Your task to perform on an android device: uninstall "Google Play Music" Image 0: 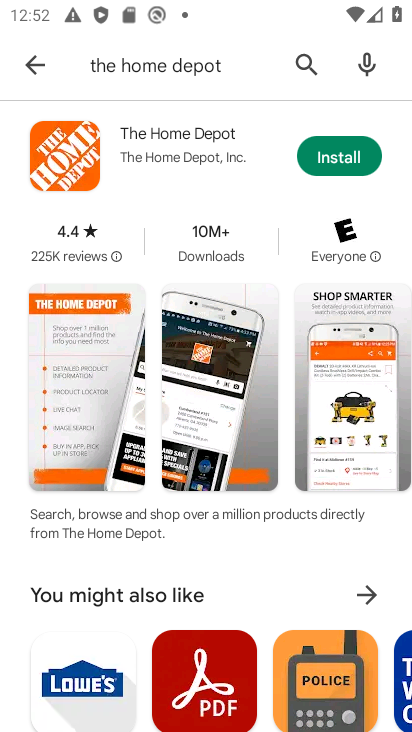
Step 0: click (299, 61)
Your task to perform on an android device: uninstall "Google Play Music" Image 1: 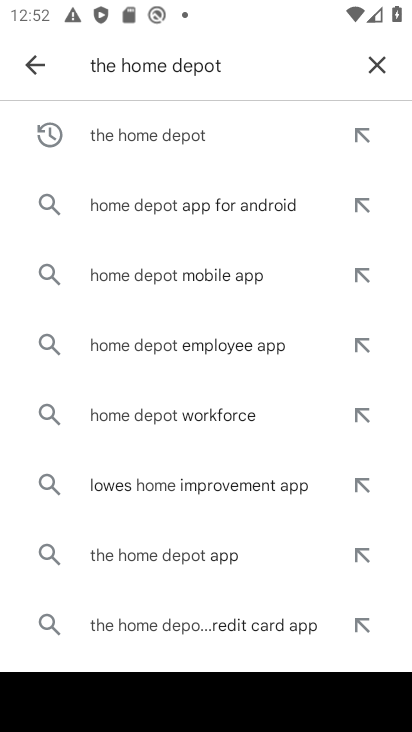
Step 1: click (369, 62)
Your task to perform on an android device: uninstall "Google Play Music" Image 2: 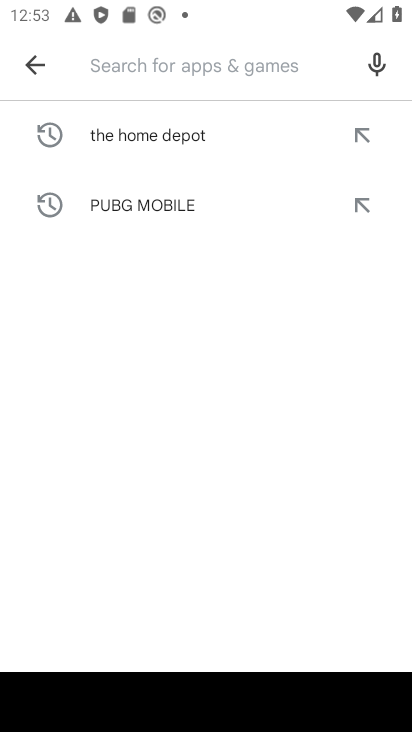
Step 2: type "google play music"
Your task to perform on an android device: uninstall "Google Play Music" Image 3: 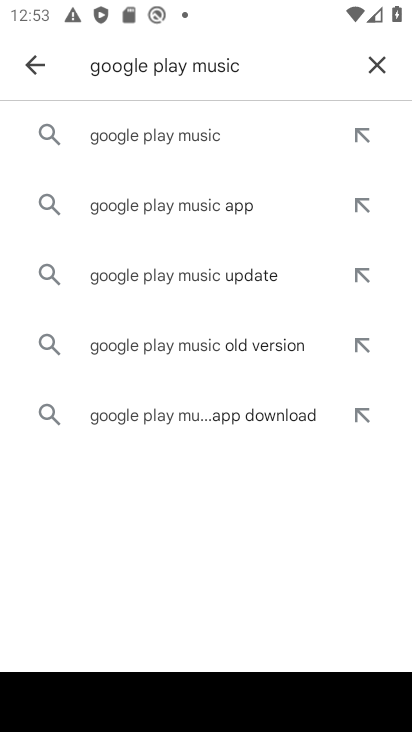
Step 3: click (218, 122)
Your task to perform on an android device: uninstall "Google Play Music" Image 4: 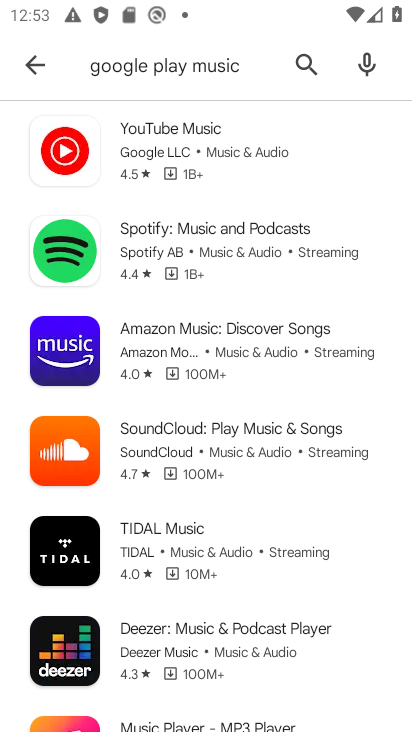
Step 4: click (242, 125)
Your task to perform on an android device: uninstall "Google Play Music" Image 5: 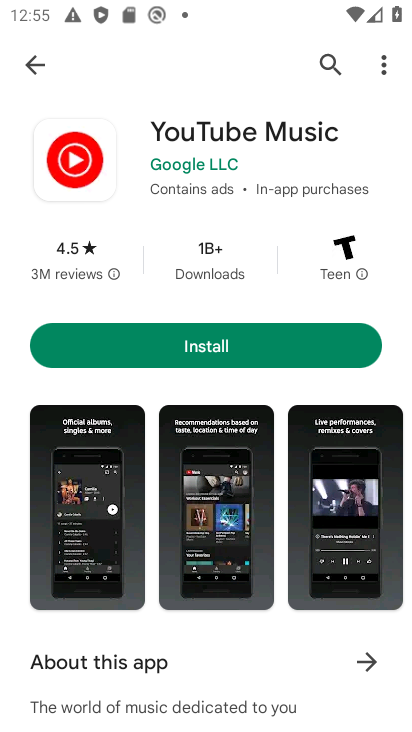
Step 5: task complete